Your task to perform on an android device: delete browsing data in the chrome app Image 0: 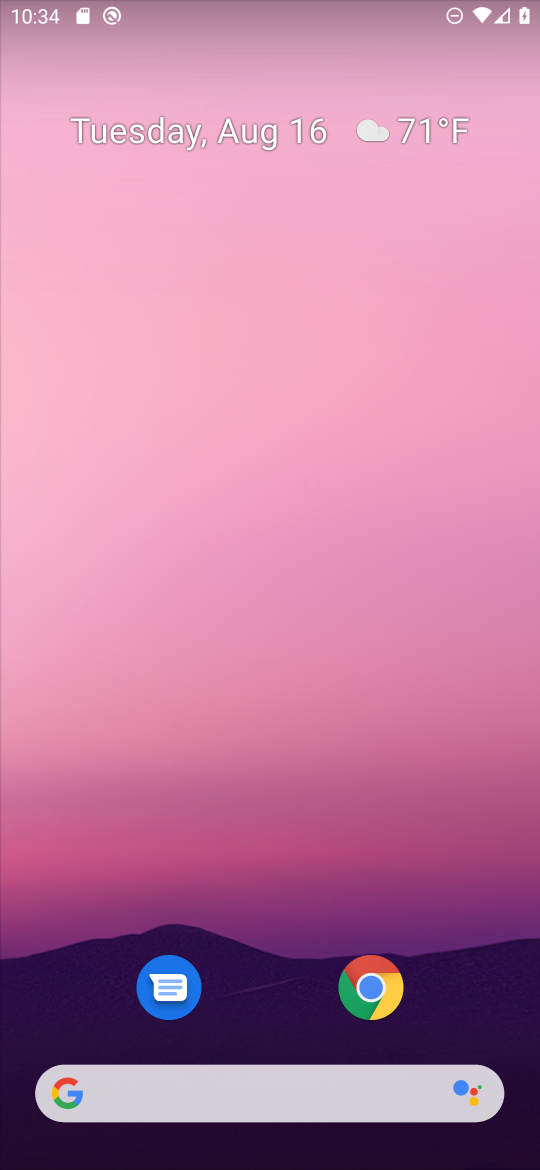
Step 0: click (363, 983)
Your task to perform on an android device: delete browsing data in the chrome app Image 1: 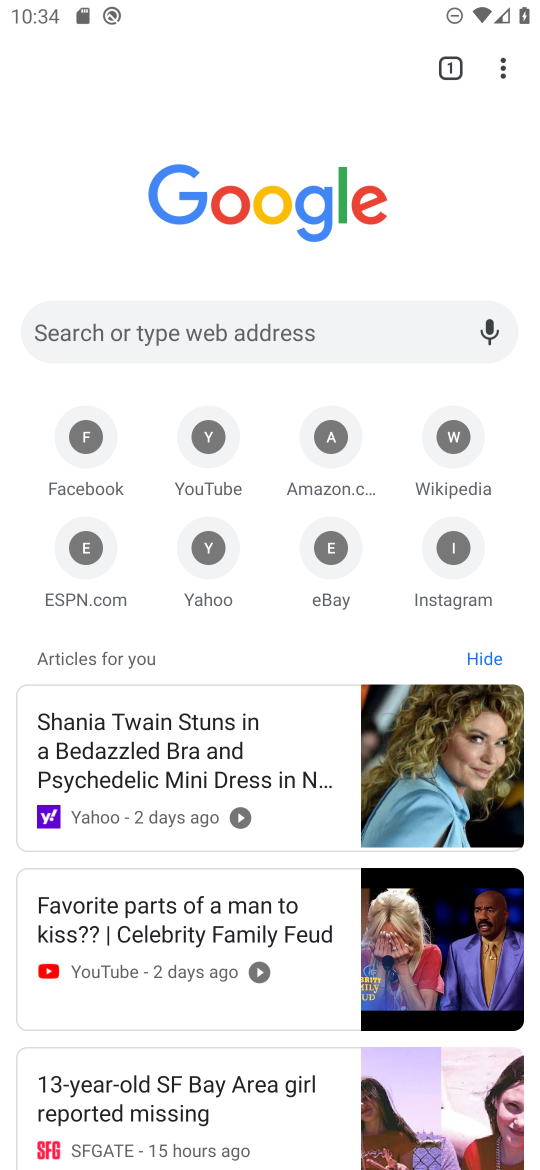
Step 1: click (496, 74)
Your task to perform on an android device: delete browsing data in the chrome app Image 2: 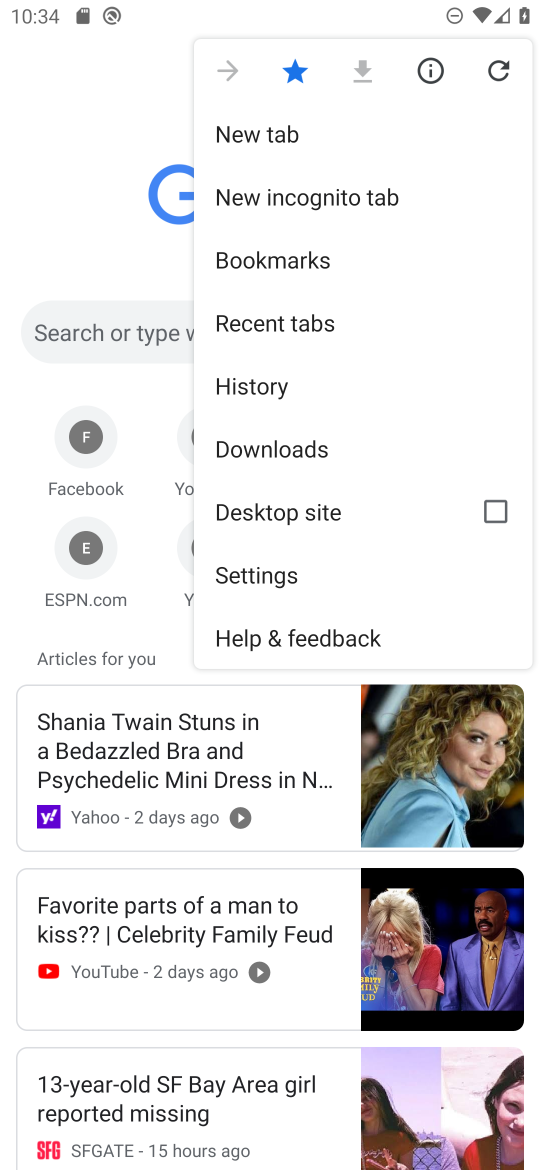
Step 2: click (239, 397)
Your task to perform on an android device: delete browsing data in the chrome app Image 3: 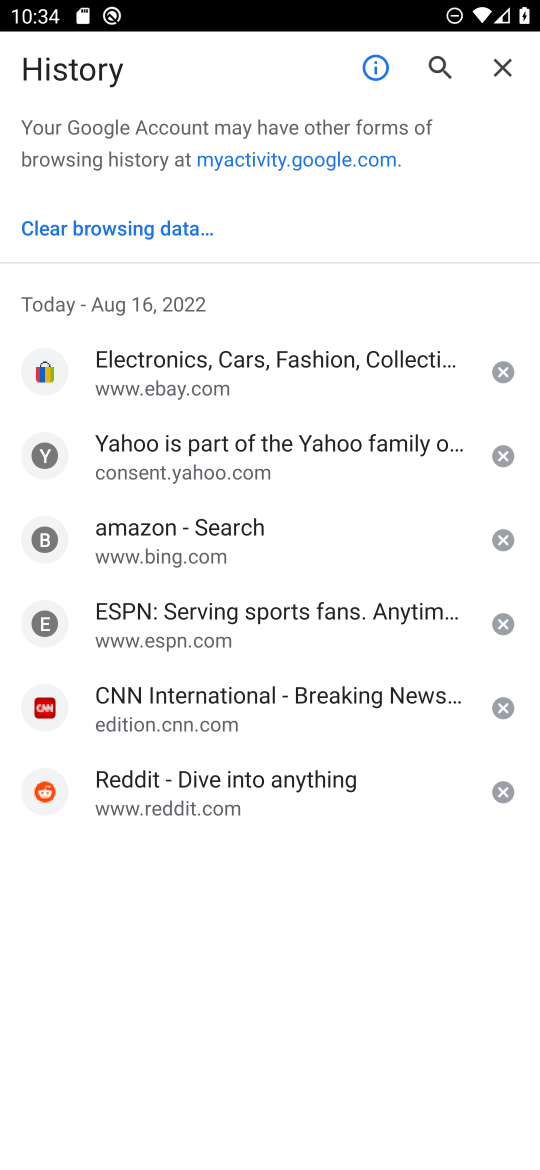
Step 3: click (137, 224)
Your task to perform on an android device: delete browsing data in the chrome app Image 4: 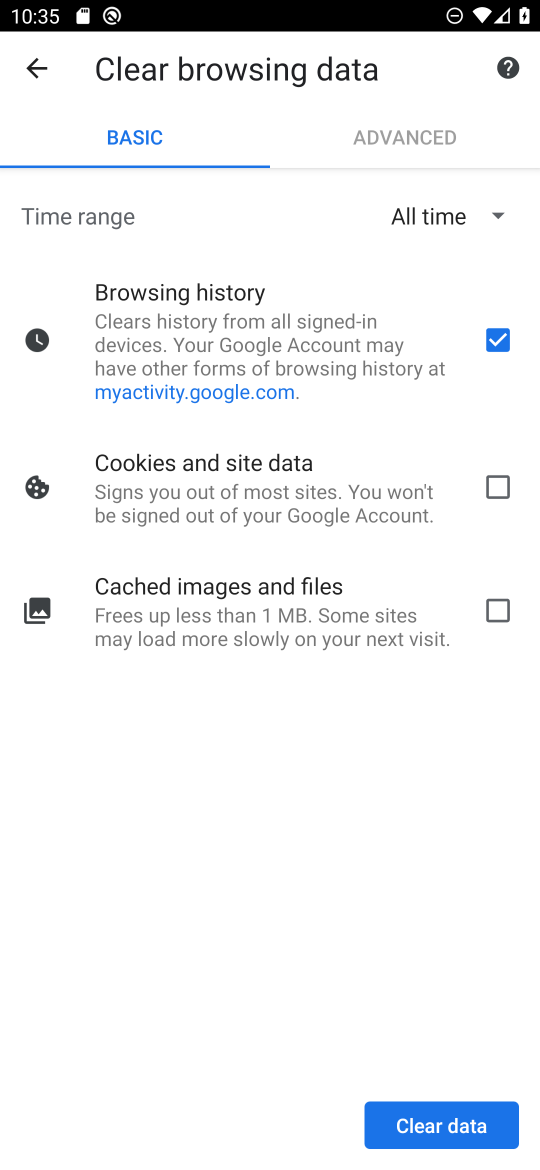
Step 4: click (421, 1116)
Your task to perform on an android device: delete browsing data in the chrome app Image 5: 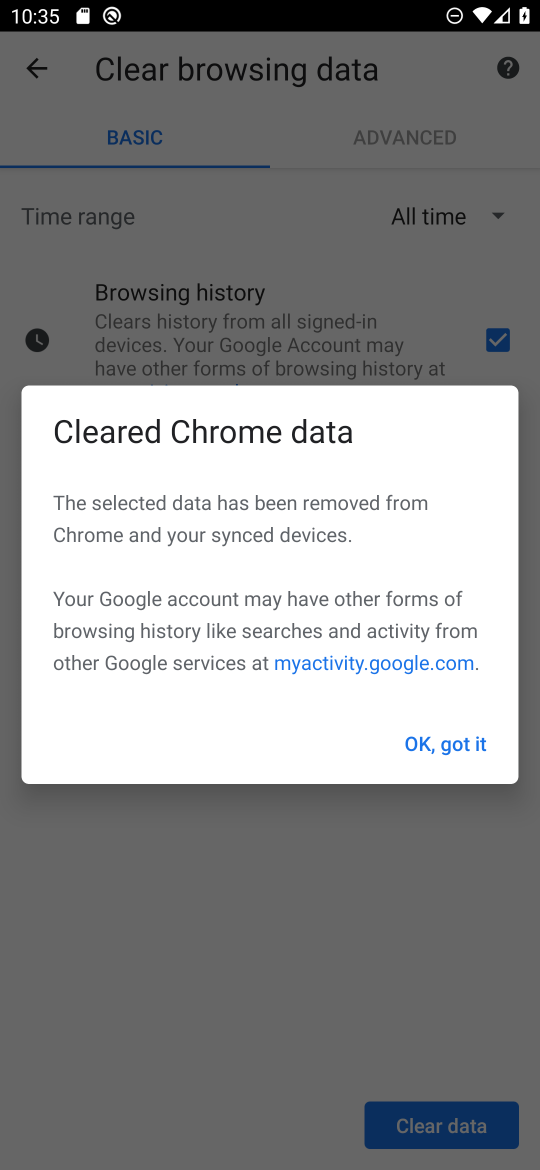
Step 5: click (467, 752)
Your task to perform on an android device: delete browsing data in the chrome app Image 6: 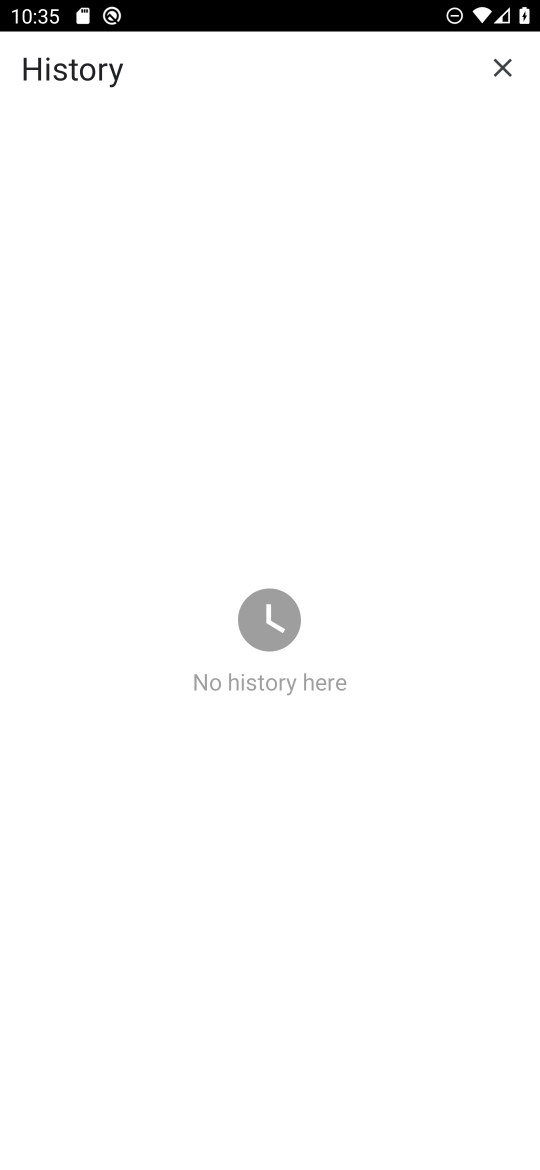
Step 6: task complete